Your task to perform on an android device: toggle data saver in the chrome app Image 0: 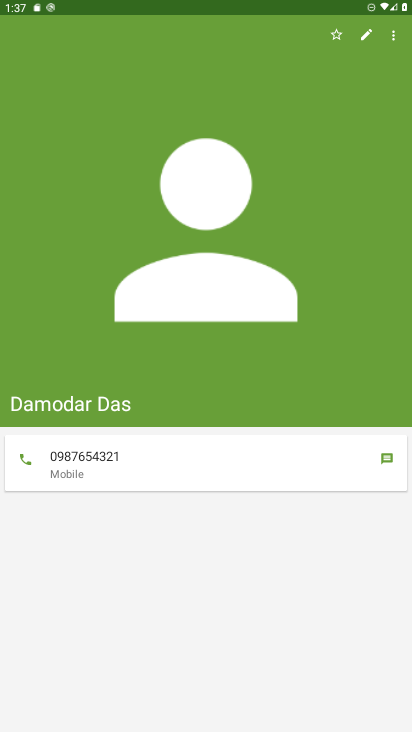
Step 0: press home button
Your task to perform on an android device: toggle data saver in the chrome app Image 1: 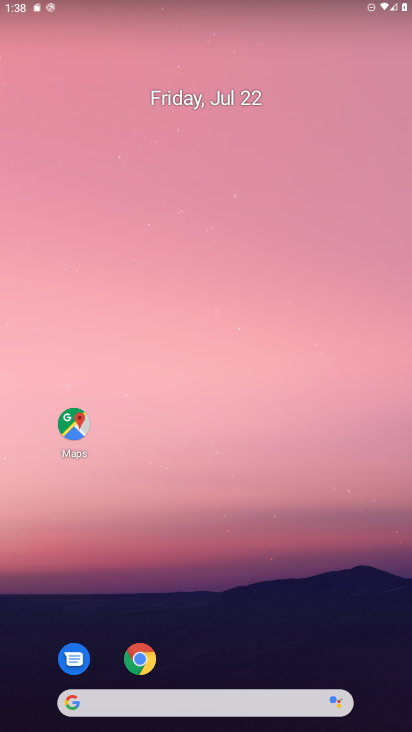
Step 1: click (139, 658)
Your task to perform on an android device: toggle data saver in the chrome app Image 2: 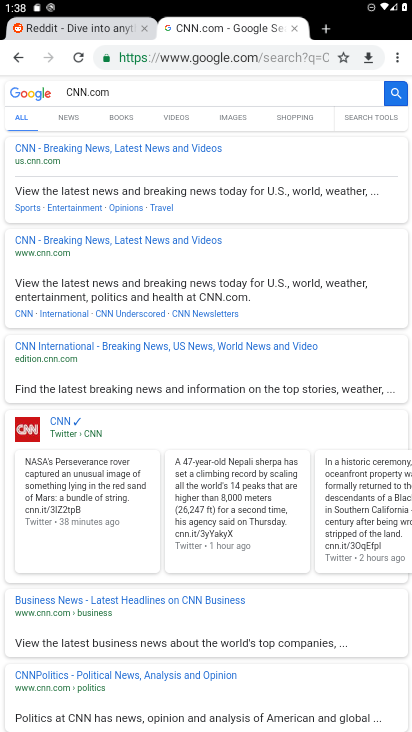
Step 2: click (399, 56)
Your task to perform on an android device: toggle data saver in the chrome app Image 3: 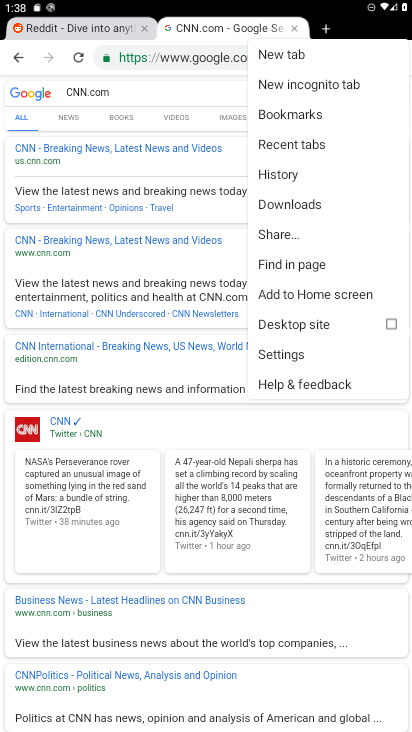
Step 3: click (283, 353)
Your task to perform on an android device: toggle data saver in the chrome app Image 4: 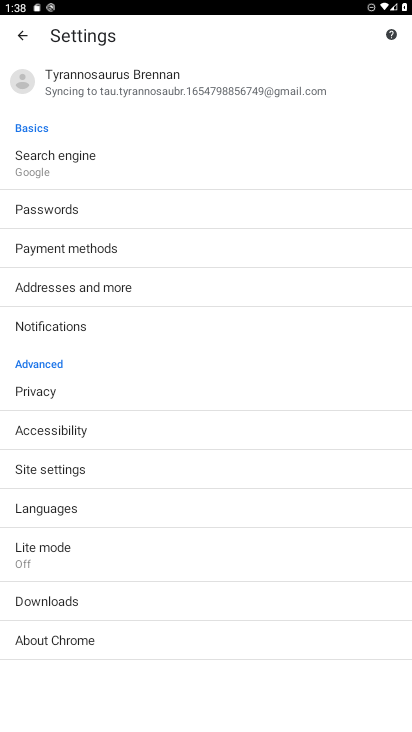
Step 4: click (31, 545)
Your task to perform on an android device: toggle data saver in the chrome app Image 5: 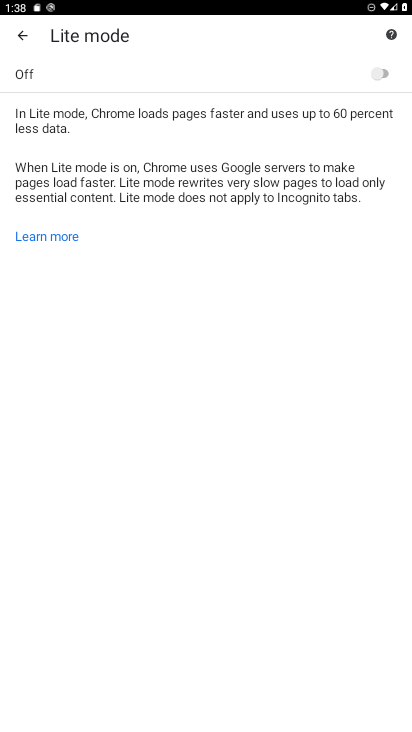
Step 5: click (378, 74)
Your task to perform on an android device: toggle data saver in the chrome app Image 6: 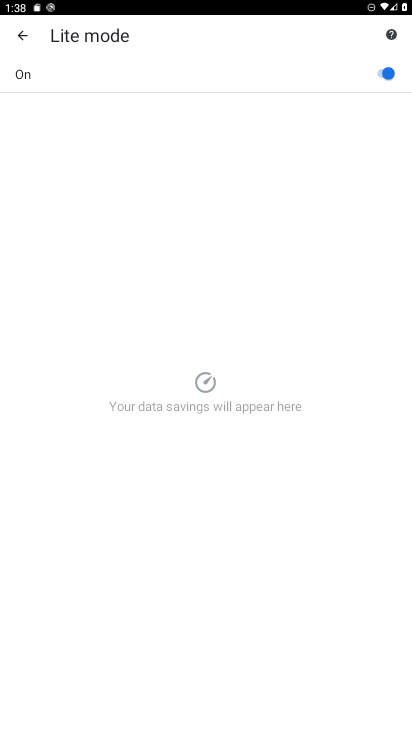
Step 6: task complete